Your task to perform on an android device: all mails in gmail Image 0: 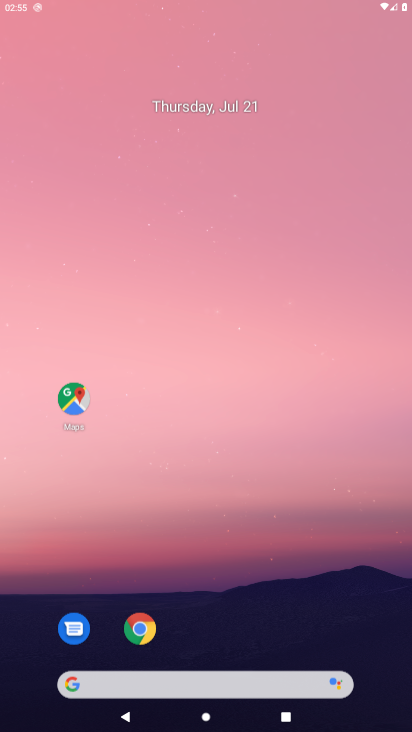
Step 0: click (148, 215)
Your task to perform on an android device: all mails in gmail Image 1: 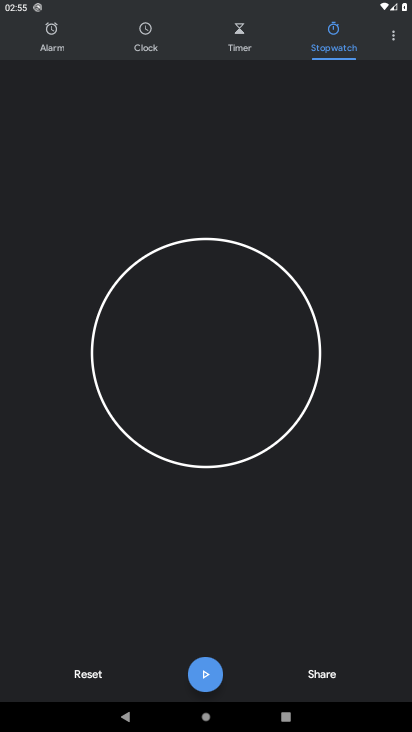
Step 1: press home button
Your task to perform on an android device: all mails in gmail Image 2: 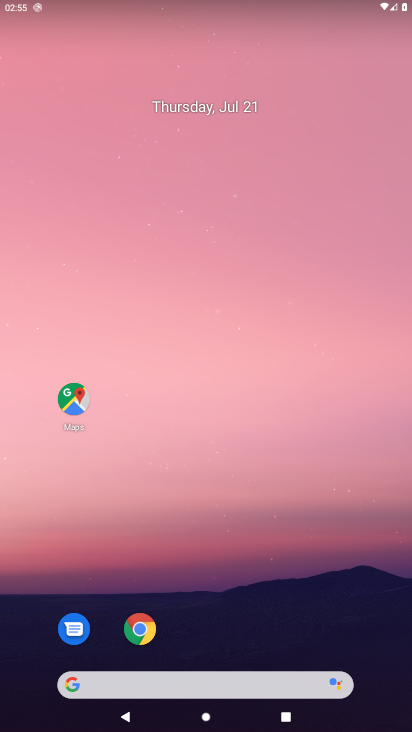
Step 2: drag from (18, 688) to (175, 207)
Your task to perform on an android device: all mails in gmail Image 3: 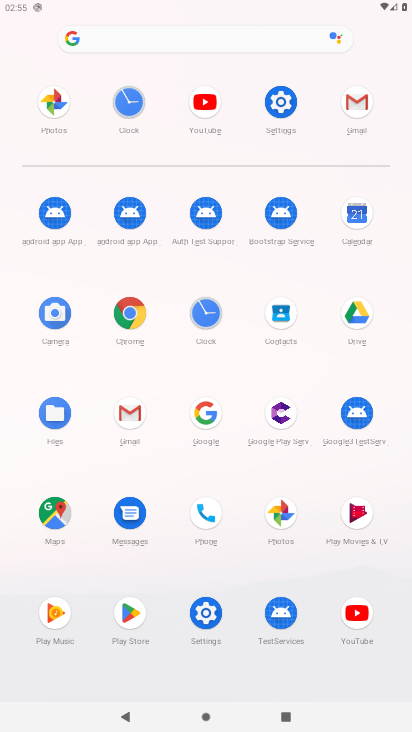
Step 3: click (141, 401)
Your task to perform on an android device: all mails in gmail Image 4: 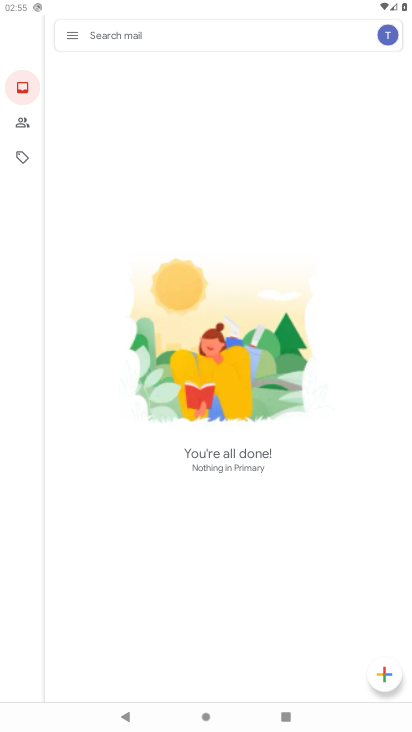
Step 4: click (71, 31)
Your task to perform on an android device: all mails in gmail Image 5: 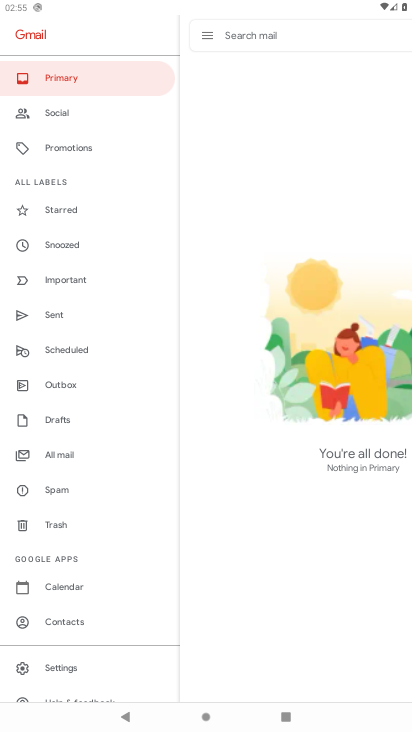
Step 5: click (65, 456)
Your task to perform on an android device: all mails in gmail Image 6: 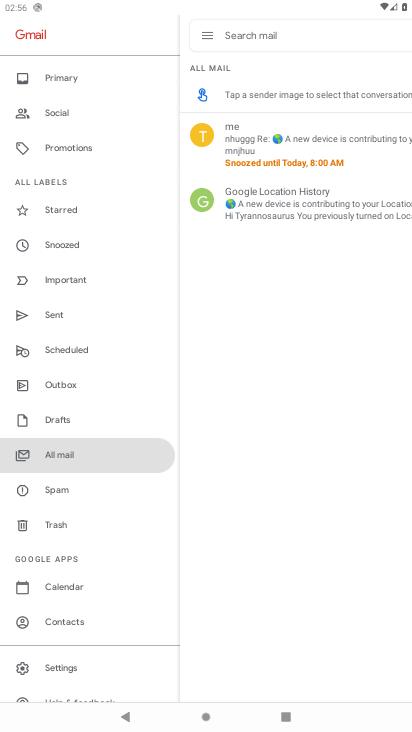
Step 6: task complete